Your task to perform on an android device: Go to Yahoo.com Image 0: 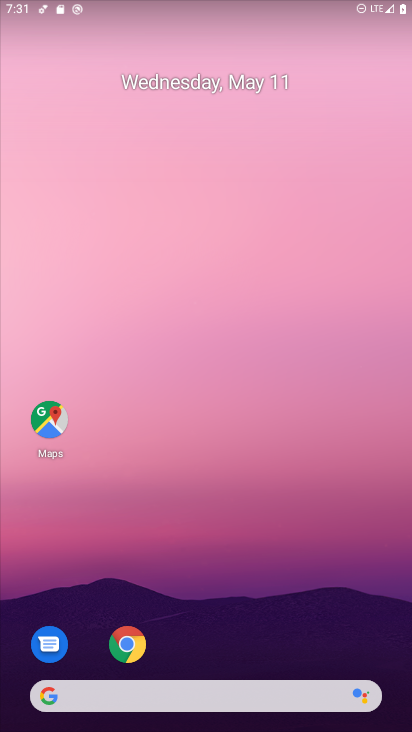
Step 0: click (129, 652)
Your task to perform on an android device: Go to Yahoo.com Image 1: 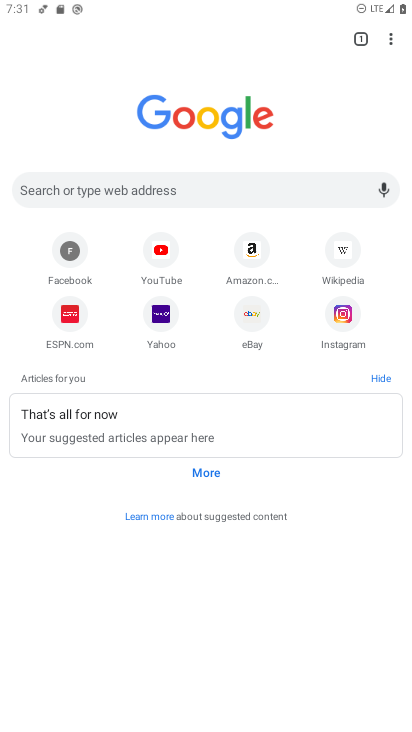
Step 1: click (159, 311)
Your task to perform on an android device: Go to Yahoo.com Image 2: 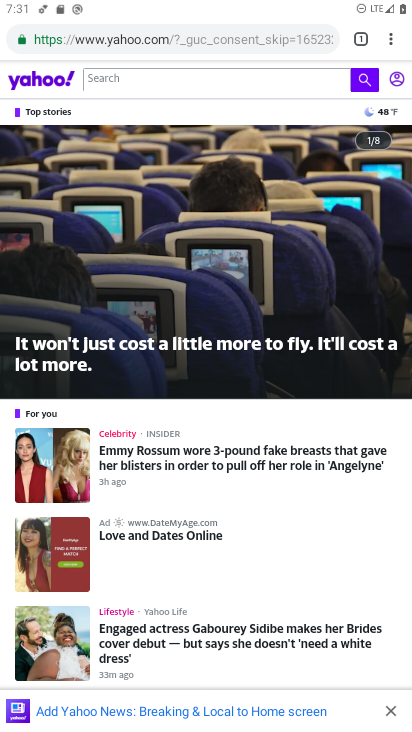
Step 2: task complete